Your task to perform on an android device: Open sound settings Image 0: 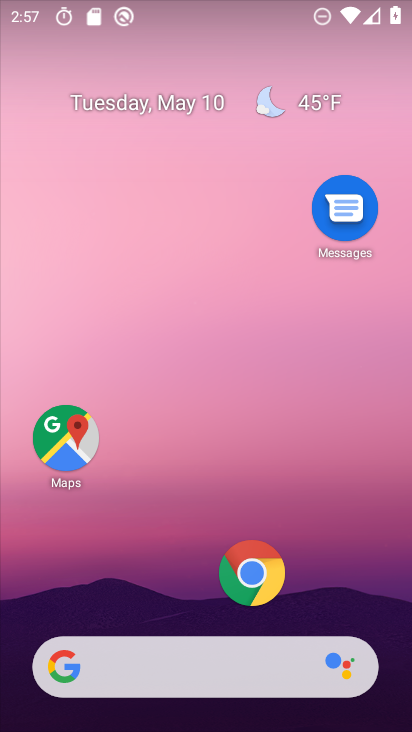
Step 0: drag from (195, 565) to (212, 268)
Your task to perform on an android device: Open sound settings Image 1: 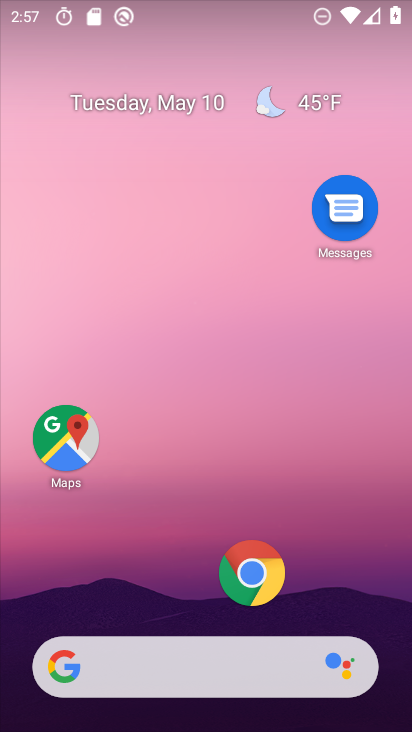
Step 1: drag from (209, 619) to (209, 174)
Your task to perform on an android device: Open sound settings Image 2: 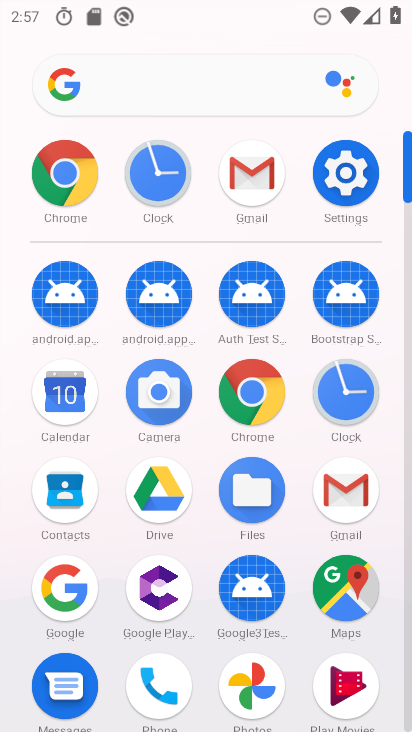
Step 2: click (353, 180)
Your task to perform on an android device: Open sound settings Image 3: 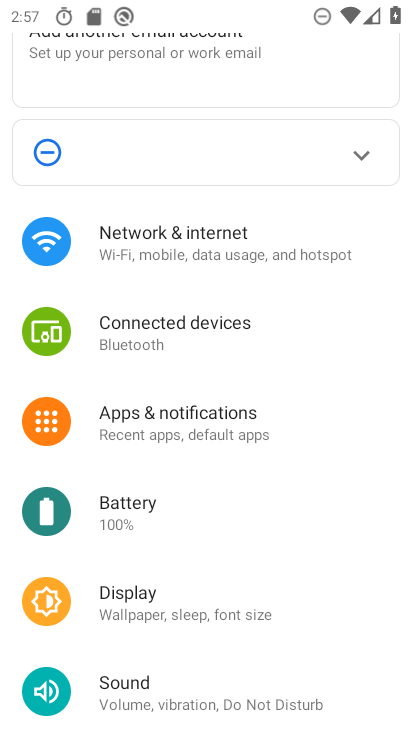
Step 3: drag from (171, 620) to (234, 315)
Your task to perform on an android device: Open sound settings Image 4: 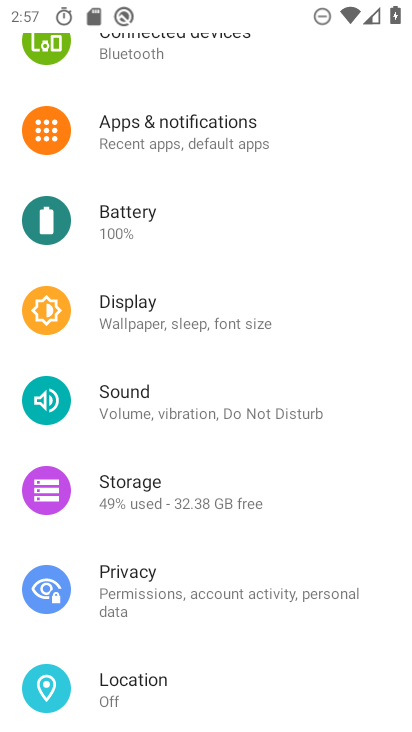
Step 4: click (135, 394)
Your task to perform on an android device: Open sound settings Image 5: 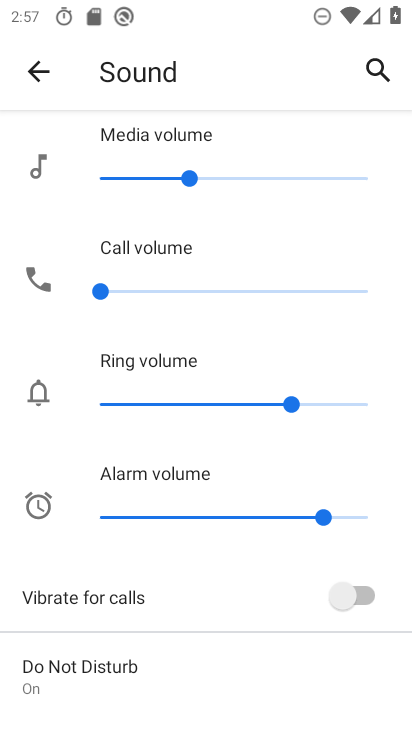
Step 5: task complete